Your task to perform on an android device: find photos in the google photos app Image 0: 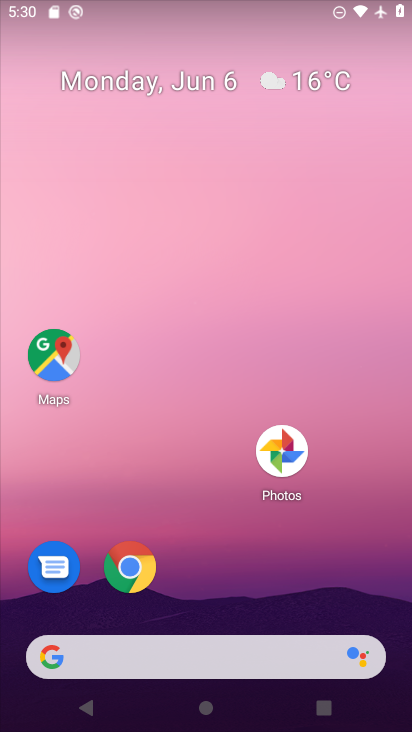
Step 0: click (193, 136)
Your task to perform on an android device: find photos in the google photos app Image 1: 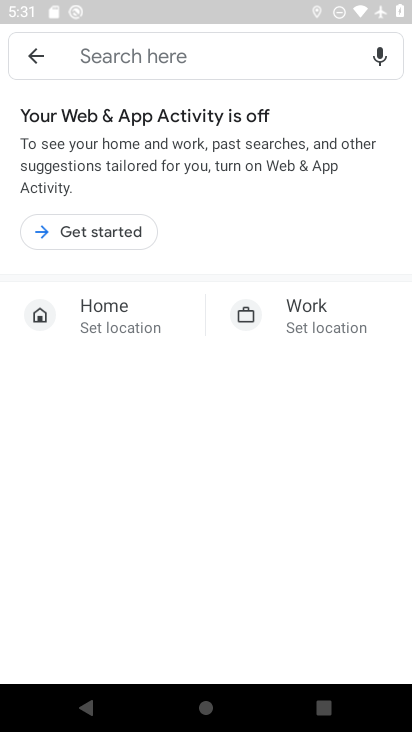
Step 1: click (41, 50)
Your task to perform on an android device: find photos in the google photos app Image 2: 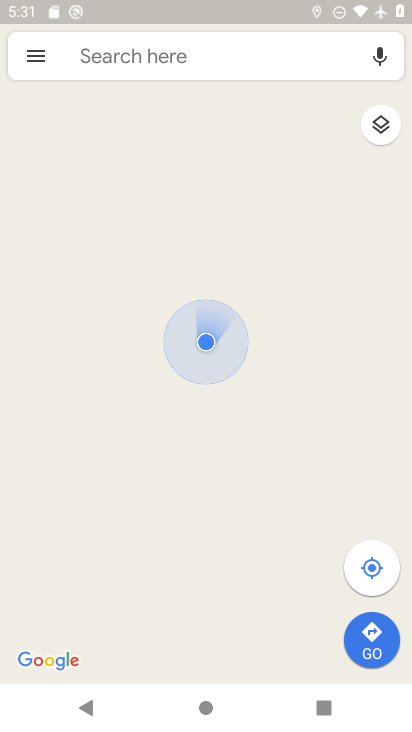
Step 2: press back button
Your task to perform on an android device: find photos in the google photos app Image 3: 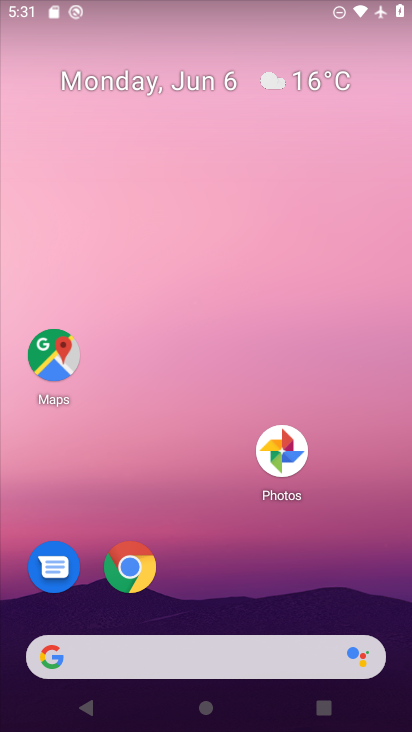
Step 3: drag from (238, 285) to (228, 23)
Your task to perform on an android device: find photos in the google photos app Image 4: 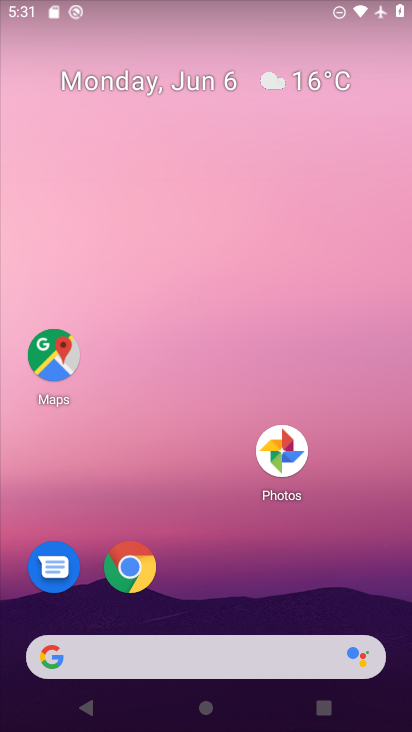
Step 4: drag from (253, 688) to (160, 126)
Your task to perform on an android device: find photos in the google photos app Image 5: 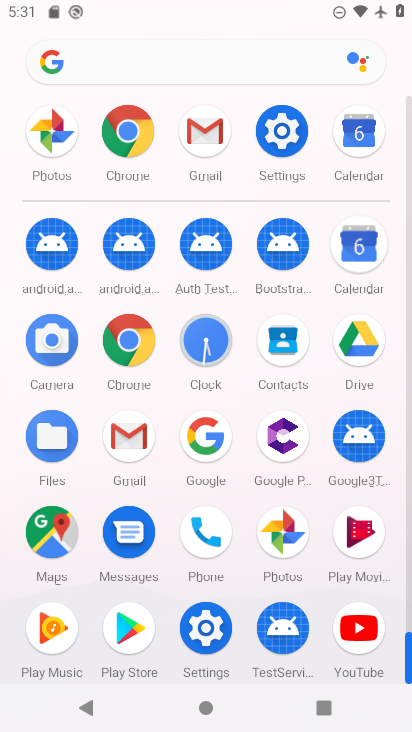
Step 5: click (273, 536)
Your task to perform on an android device: find photos in the google photos app Image 6: 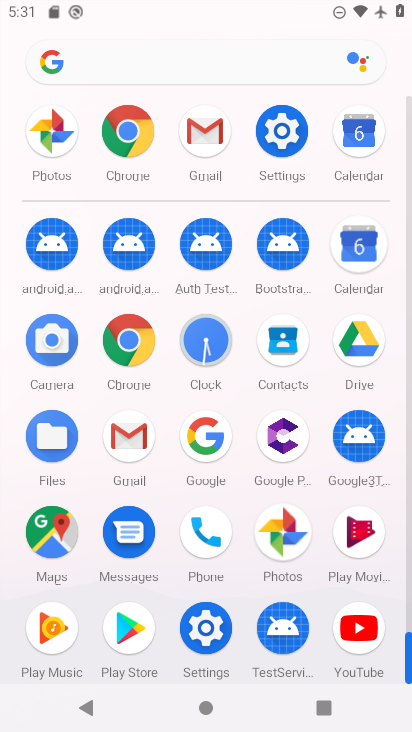
Step 6: click (273, 536)
Your task to perform on an android device: find photos in the google photos app Image 7: 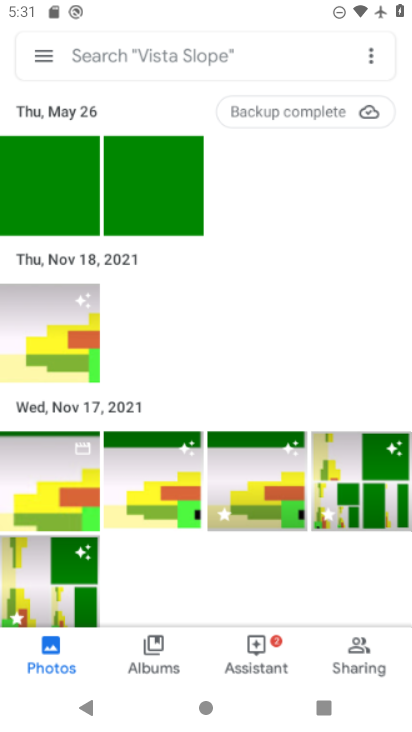
Step 7: click (274, 537)
Your task to perform on an android device: find photos in the google photos app Image 8: 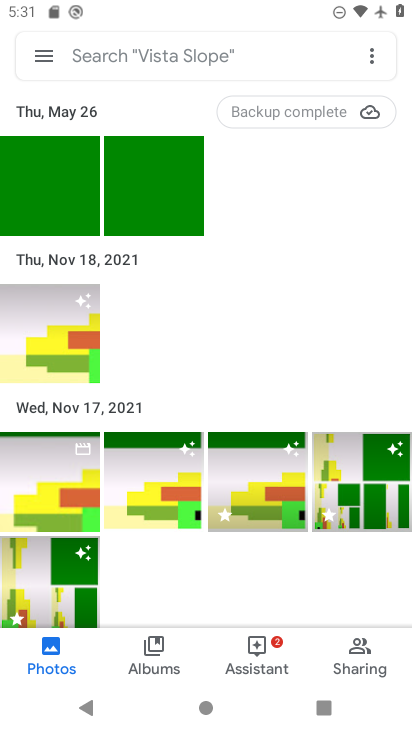
Step 8: click (274, 537)
Your task to perform on an android device: find photos in the google photos app Image 9: 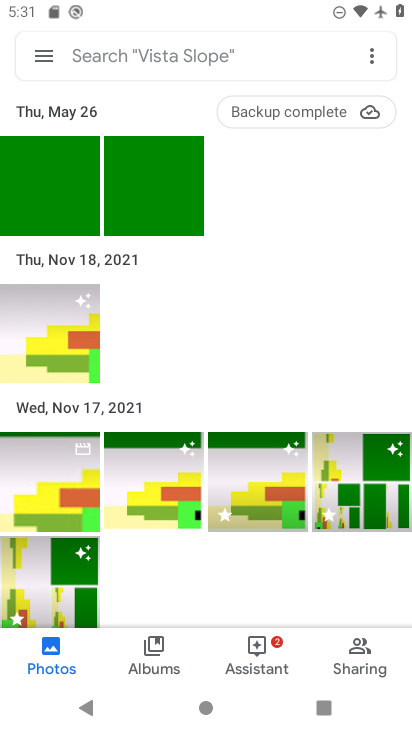
Step 9: task complete